Your task to perform on an android device: remove spam from my inbox in the gmail app Image 0: 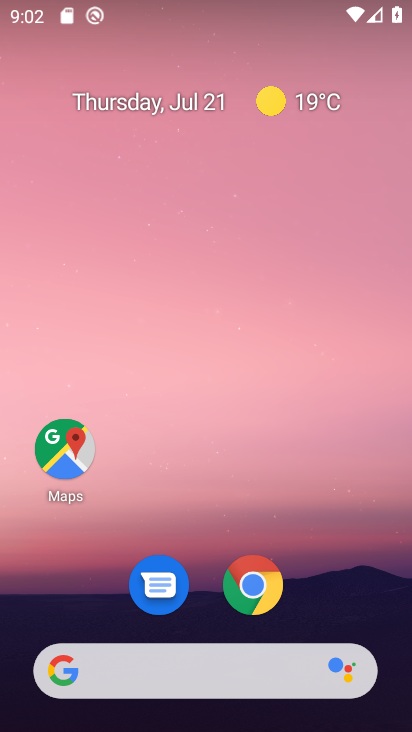
Step 0: drag from (320, 488) to (323, 75)
Your task to perform on an android device: remove spam from my inbox in the gmail app Image 1: 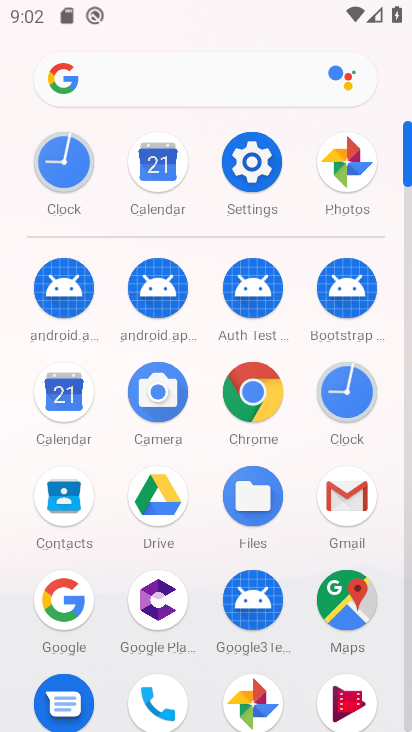
Step 1: click (343, 491)
Your task to perform on an android device: remove spam from my inbox in the gmail app Image 2: 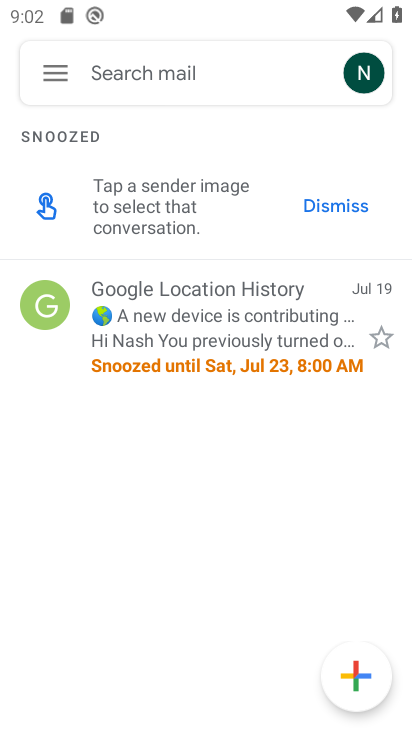
Step 2: click (60, 78)
Your task to perform on an android device: remove spam from my inbox in the gmail app Image 3: 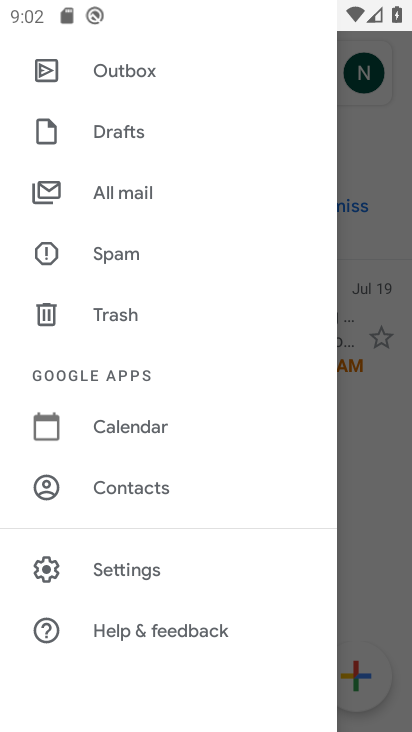
Step 3: click (106, 252)
Your task to perform on an android device: remove spam from my inbox in the gmail app Image 4: 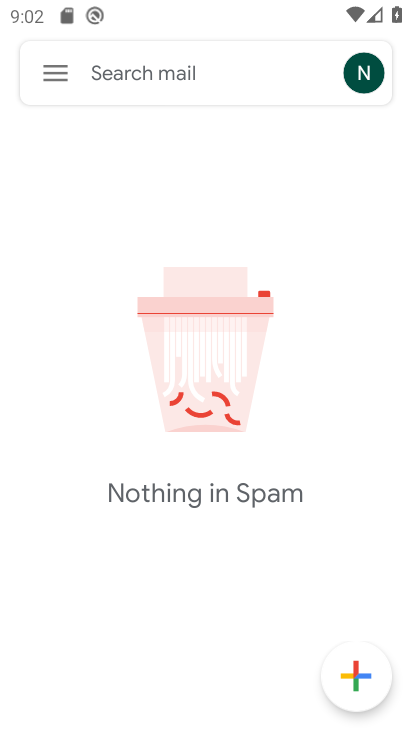
Step 4: task complete